Your task to perform on an android device: turn off wifi Image 0: 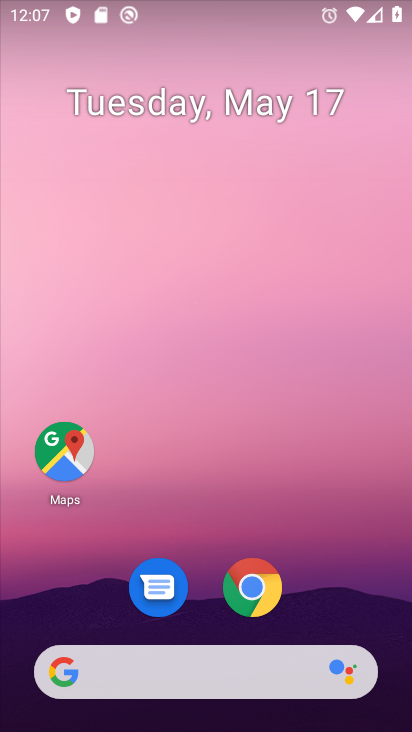
Step 0: drag from (365, 568) to (296, 71)
Your task to perform on an android device: turn off wifi Image 1: 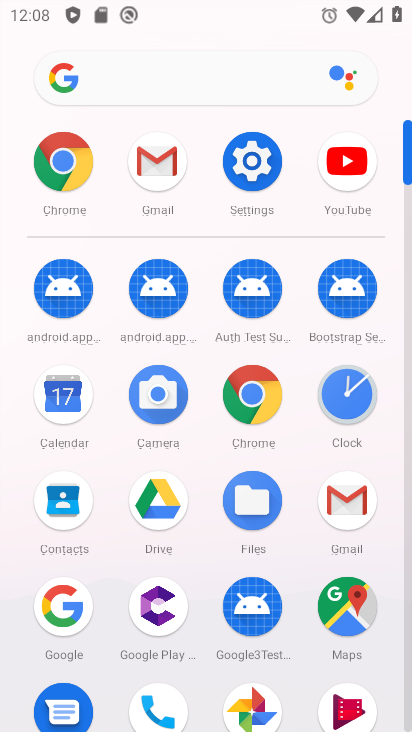
Step 1: drag from (214, 1) to (234, 416)
Your task to perform on an android device: turn off wifi Image 2: 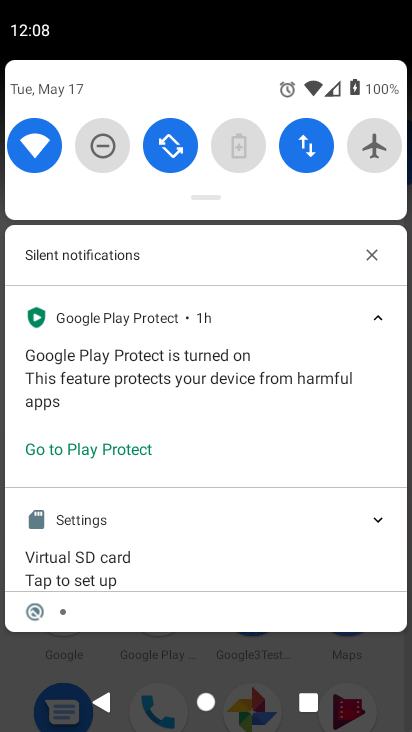
Step 2: click (28, 145)
Your task to perform on an android device: turn off wifi Image 3: 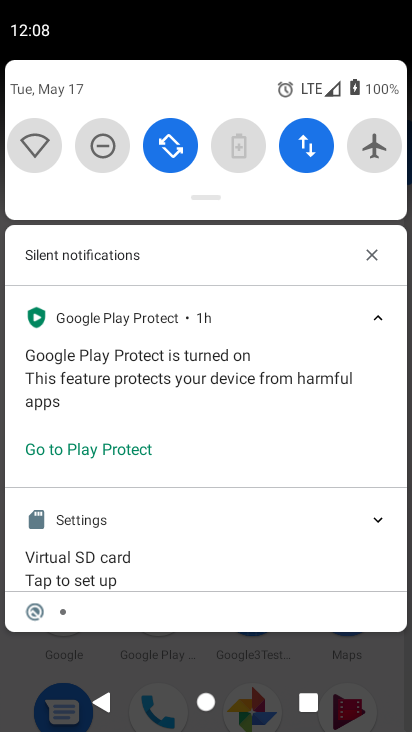
Step 3: task complete